Your task to perform on an android device: Show me the alarms in the clock app Image 0: 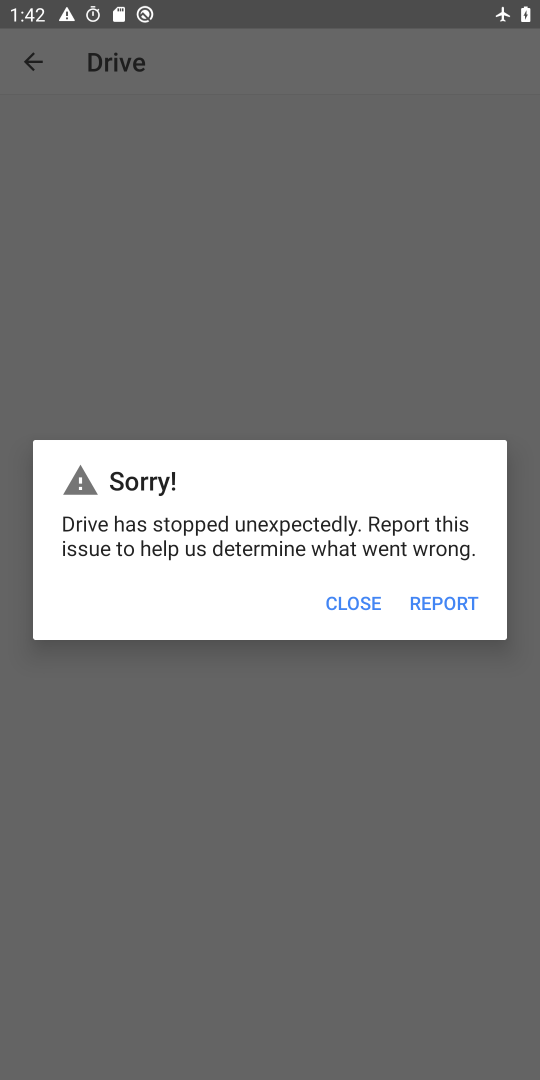
Step 0: press home button
Your task to perform on an android device: Show me the alarms in the clock app Image 1: 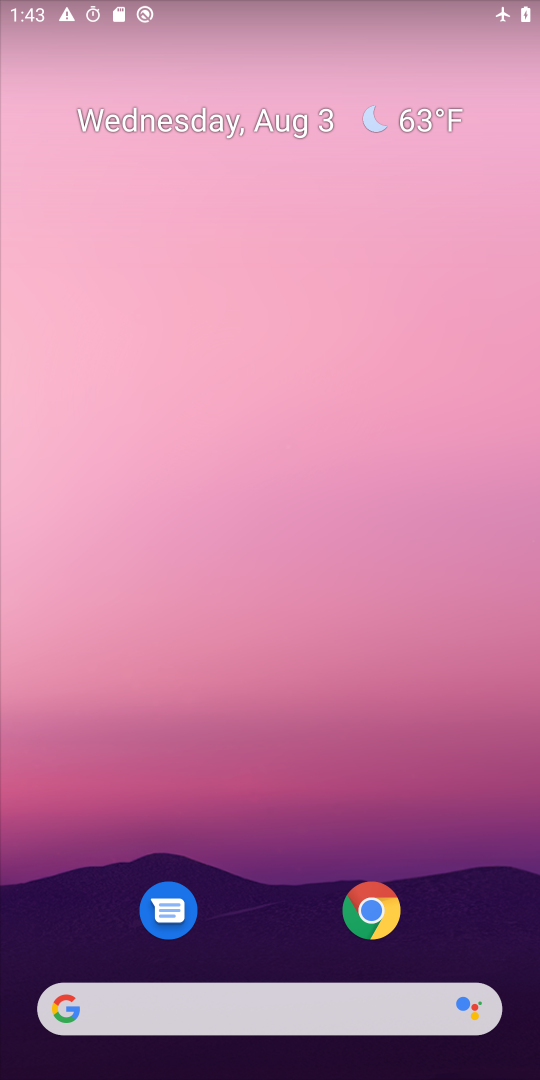
Step 1: drag from (261, 356) to (271, 9)
Your task to perform on an android device: Show me the alarms in the clock app Image 2: 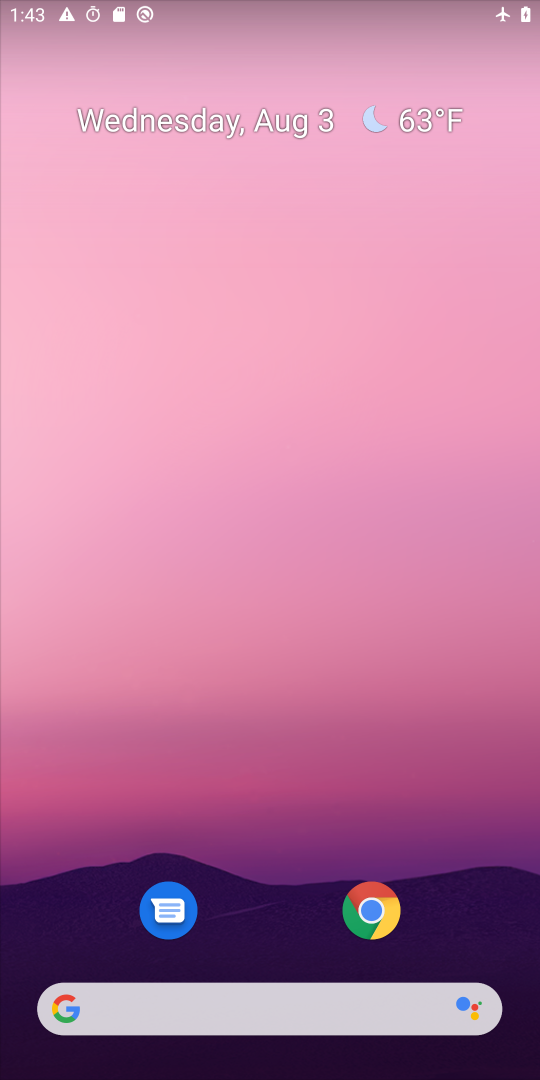
Step 2: drag from (260, 789) to (230, 3)
Your task to perform on an android device: Show me the alarms in the clock app Image 3: 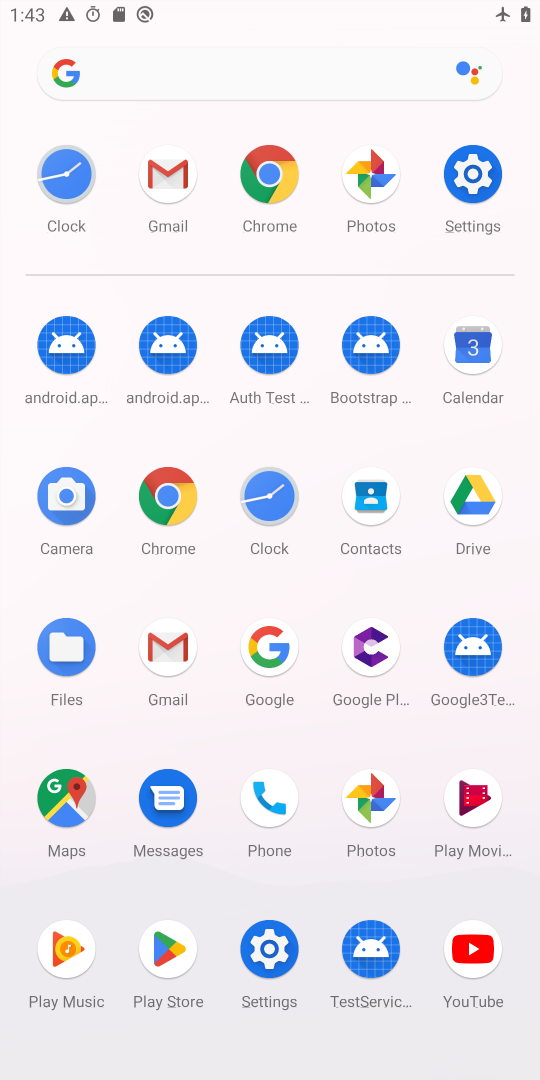
Step 3: click (275, 500)
Your task to perform on an android device: Show me the alarms in the clock app Image 4: 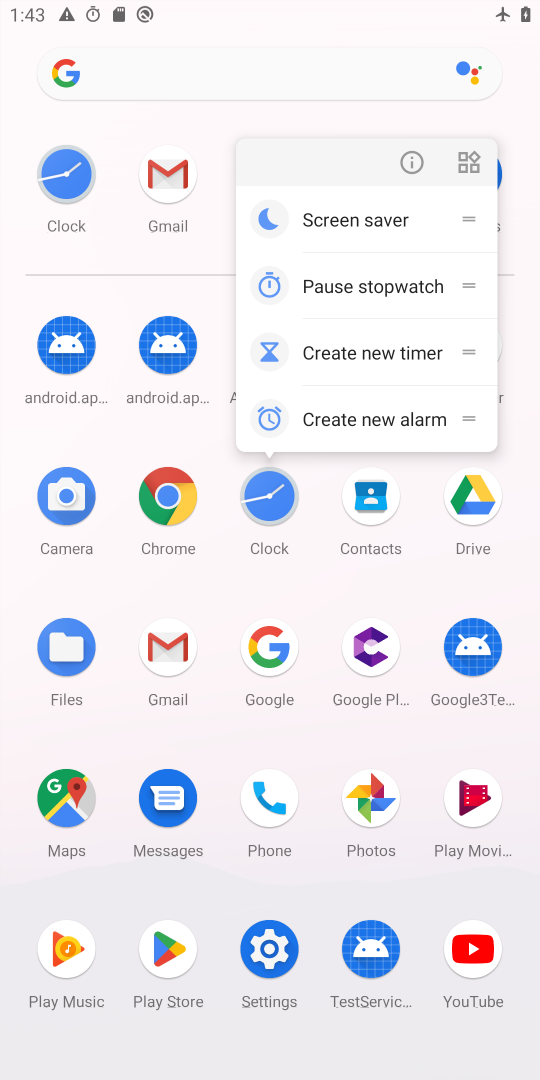
Step 4: click (260, 500)
Your task to perform on an android device: Show me the alarms in the clock app Image 5: 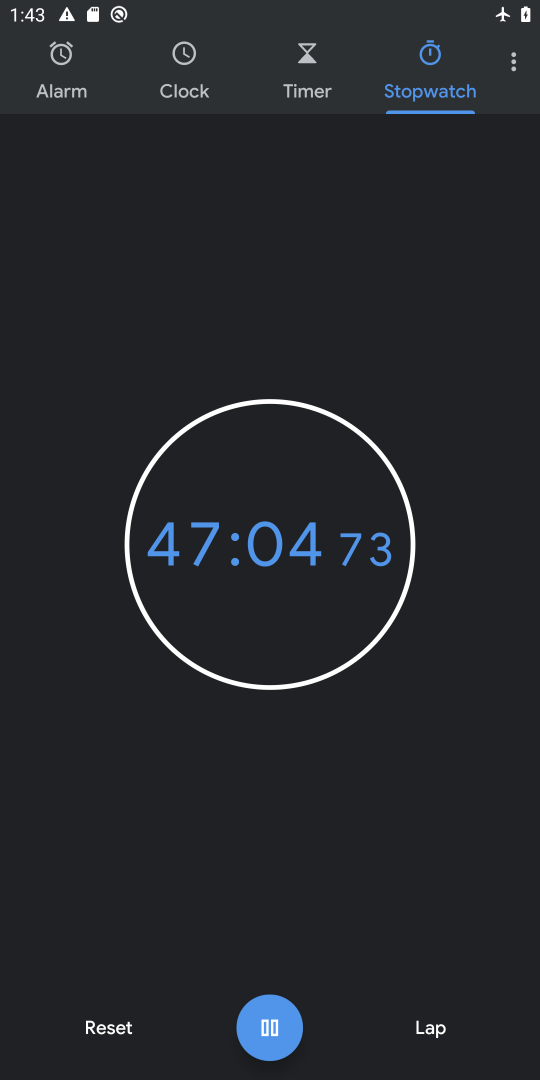
Step 5: click (514, 63)
Your task to perform on an android device: Show me the alarms in the clock app Image 6: 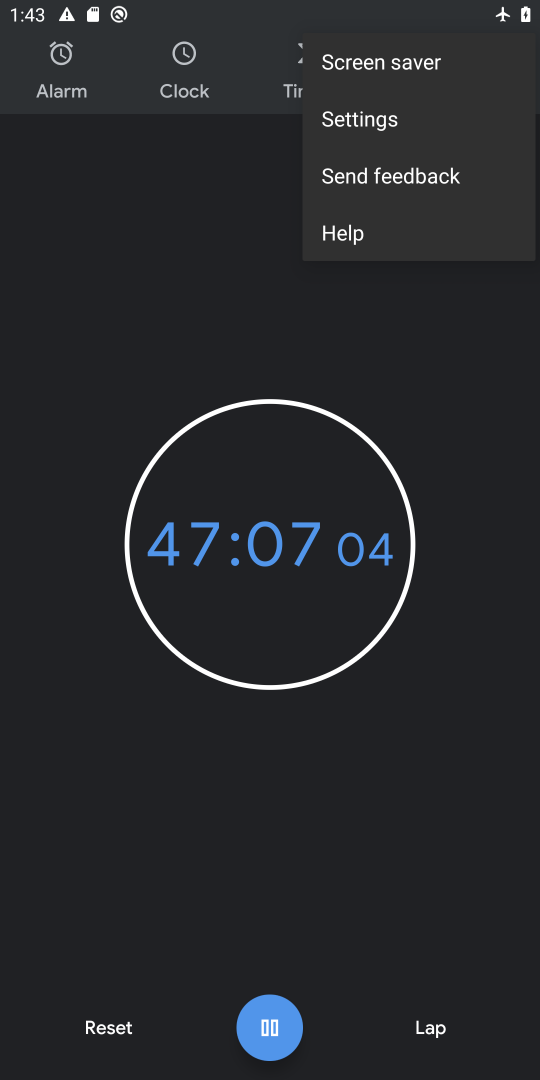
Step 6: click (78, 78)
Your task to perform on an android device: Show me the alarms in the clock app Image 7: 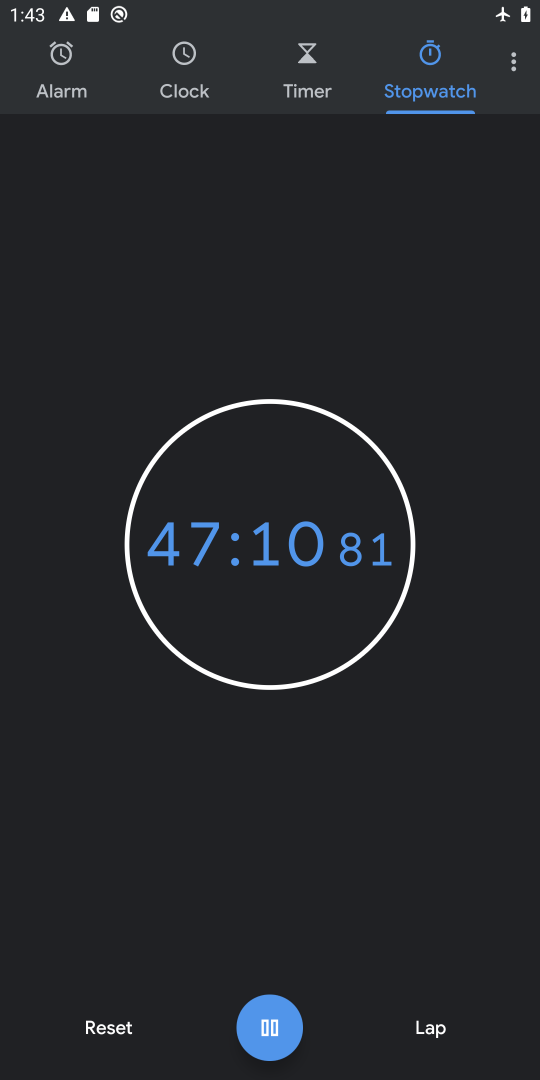
Step 7: click (71, 69)
Your task to perform on an android device: Show me the alarms in the clock app Image 8: 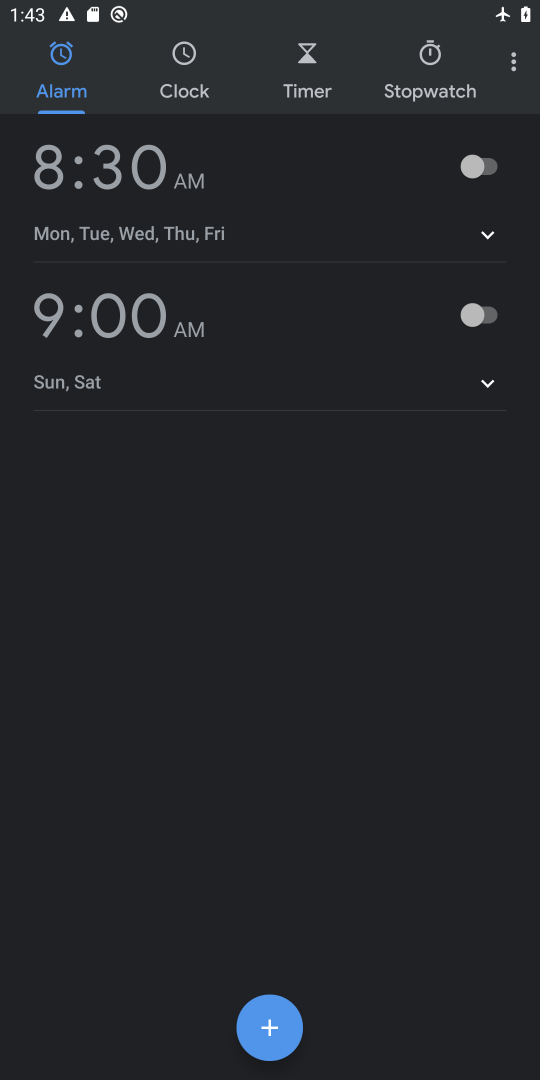
Step 8: task complete